Your task to perform on an android device: Open settings on Google Maps Image 0: 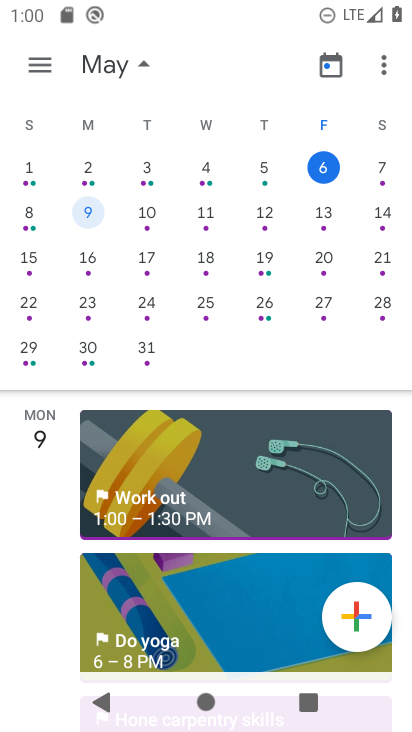
Step 0: press back button
Your task to perform on an android device: Open settings on Google Maps Image 1: 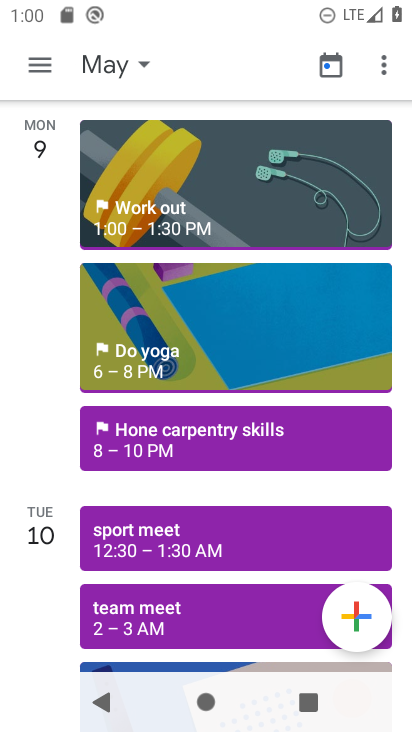
Step 1: press back button
Your task to perform on an android device: Open settings on Google Maps Image 2: 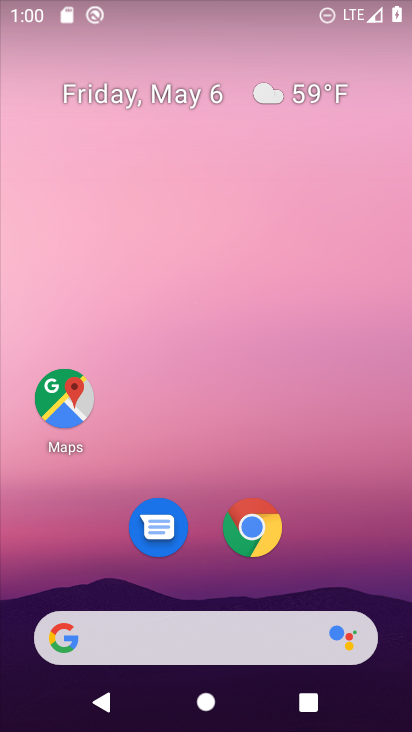
Step 2: click (67, 398)
Your task to perform on an android device: Open settings on Google Maps Image 3: 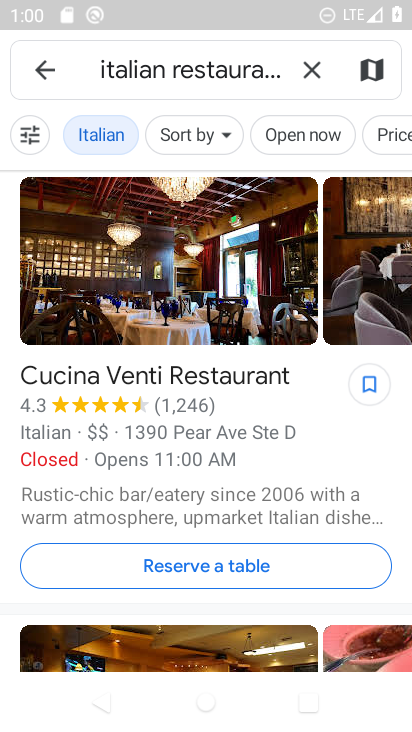
Step 3: click (317, 65)
Your task to perform on an android device: Open settings on Google Maps Image 4: 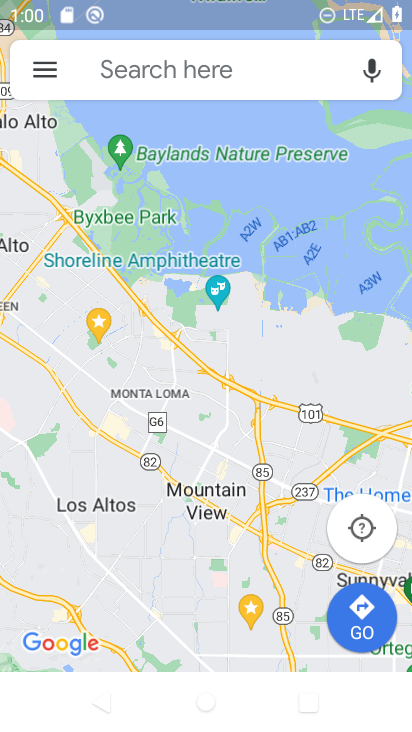
Step 4: click (41, 71)
Your task to perform on an android device: Open settings on Google Maps Image 5: 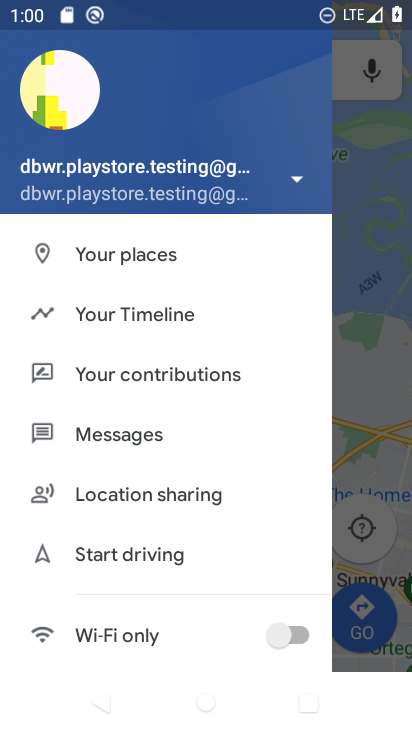
Step 5: drag from (142, 448) to (218, 305)
Your task to perform on an android device: Open settings on Google Maps Image 6: 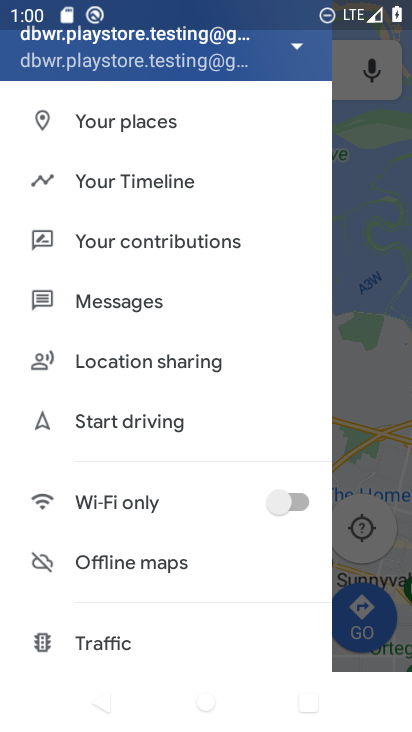
Step 6: drag from (94, 520) to (167, 377)
Your task to perform on an android device: Open settings on Google Maps Image 7: 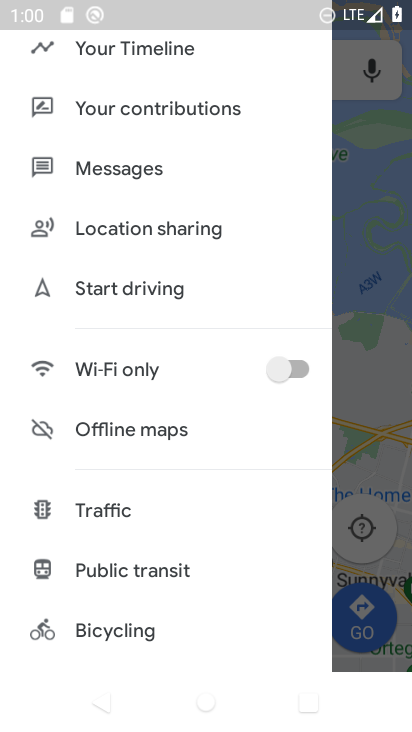
Step 7: drag from (112, 550) to (151, 390)
Your task to perform on an android device: Open settings on Google Maps Image 8: 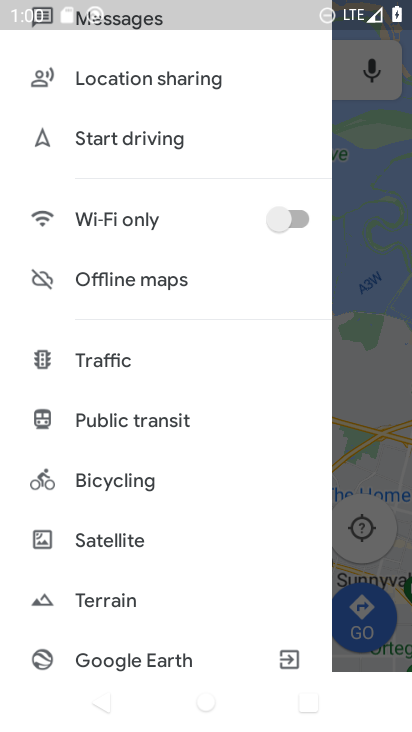
Step 8: drag from (102, 500) to (127, 404)
Your task to perform on an android device: Open settings on Google Maps Image 9: 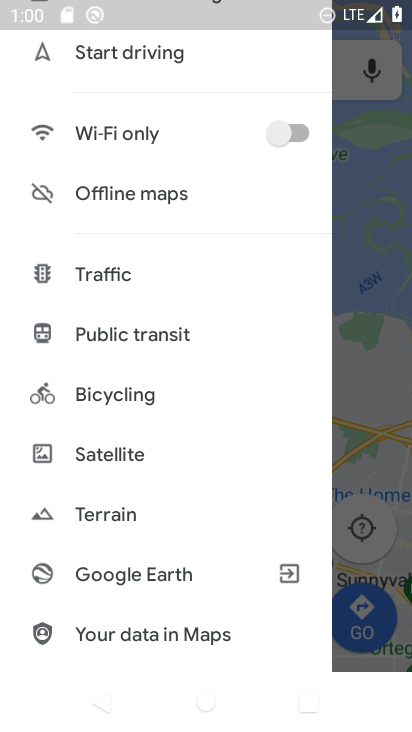
Step 9: drag from (112, 487) to (140, 388)
Your task to perform on an android device: Open settings on Google Maps Image 10: 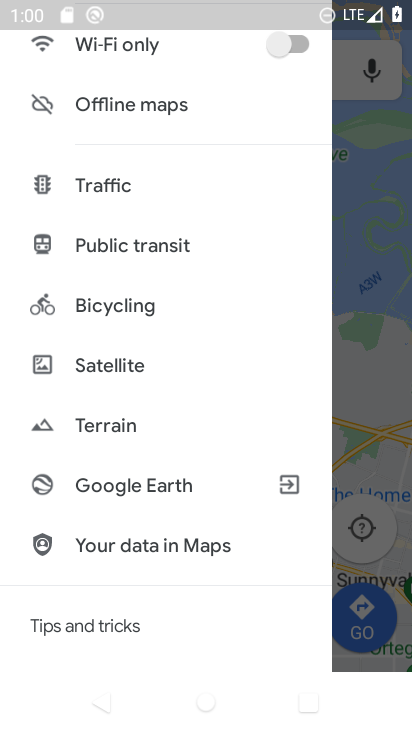
Step 10: drag from (97, 516) to (129, 415)
Your task to perform on an android device: Open settings on Google Maps Image 11: 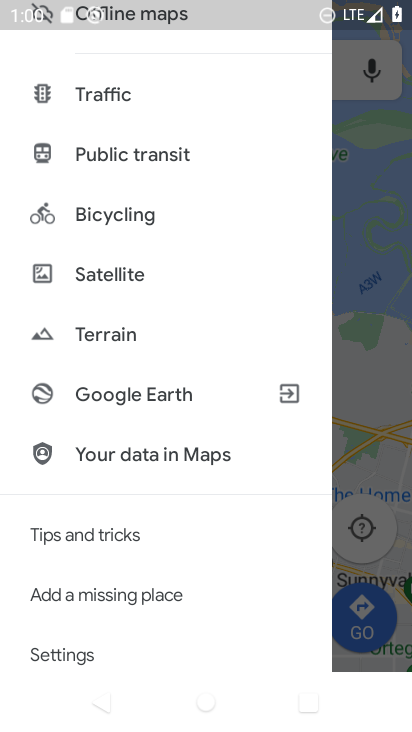
Step 11: drag from (80, 519) to (131, 410)
Your task to perform on an android device: Open settings on Google Maps Image 12: 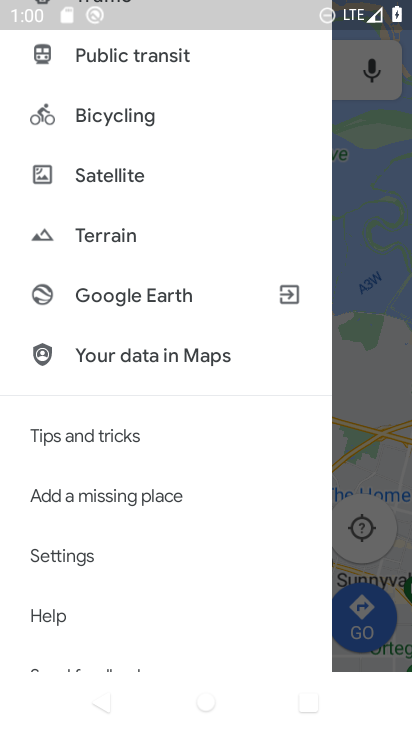
Step 12: click (73, 554)
Your task to perform on an android device: Open settings on Google Maps Image 13: 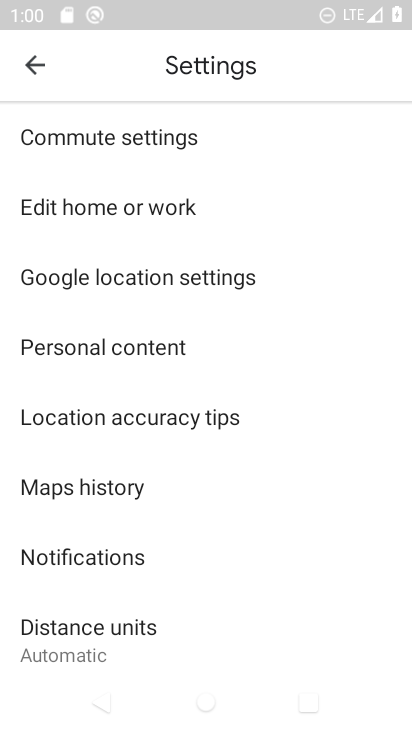
Step 13: task complete